Your task to perform on an android device: Open eBay Image 0: 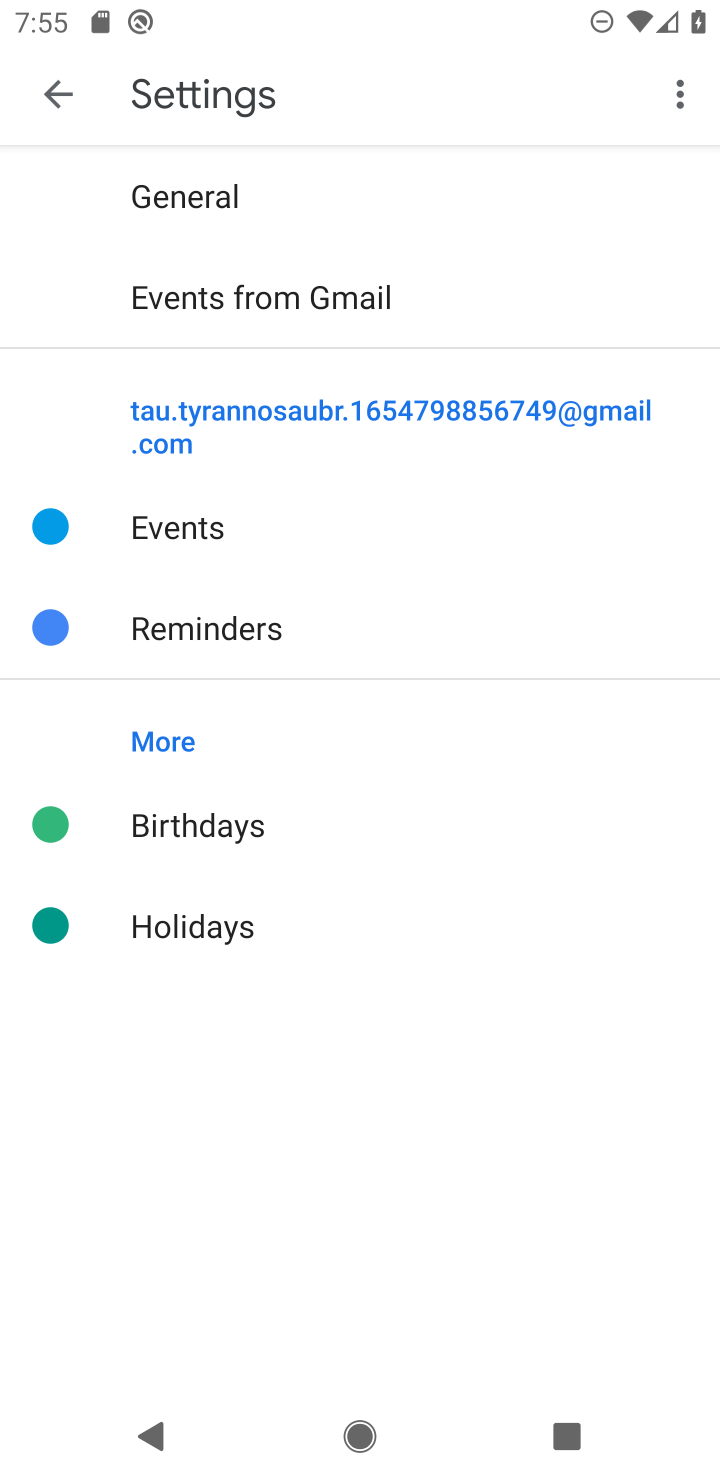
Step 0: press home button
Your task to perform on an android device: Open eBay Image 1: 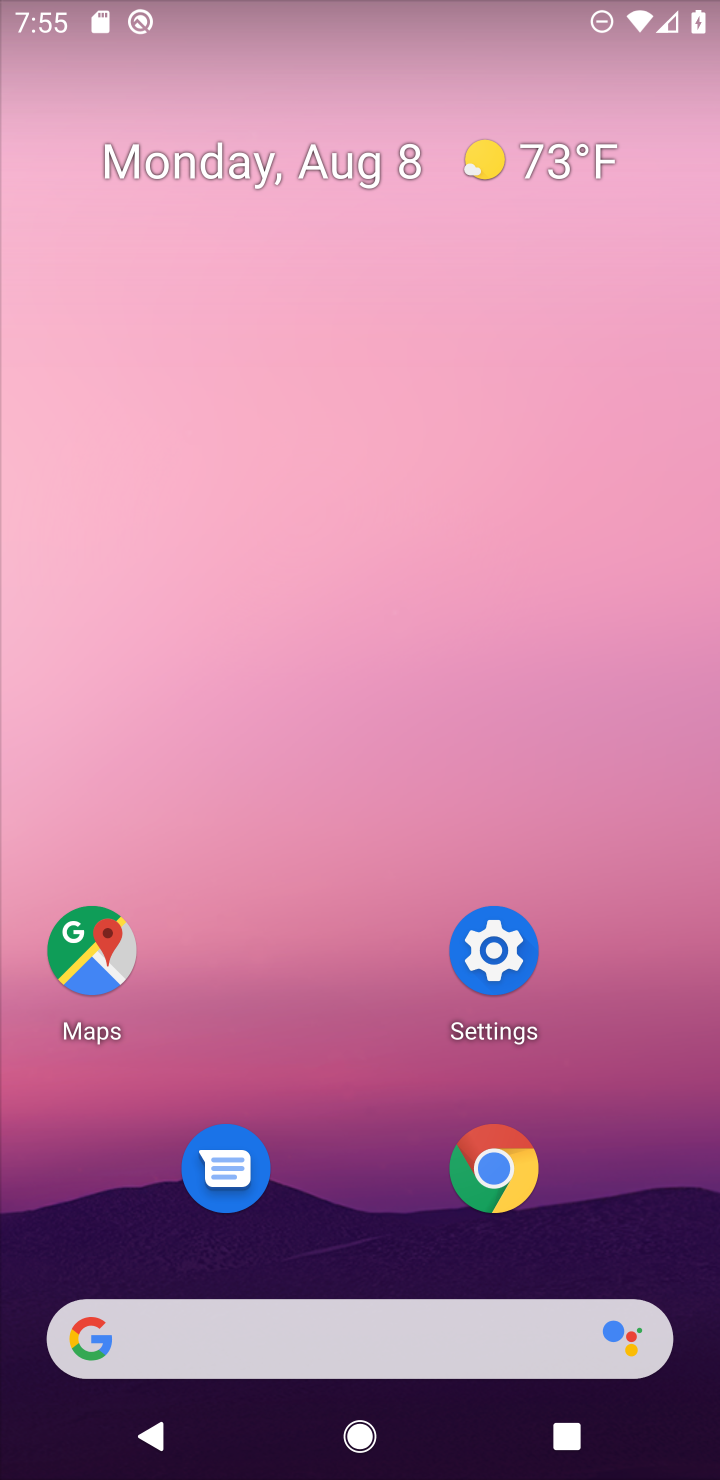
Step 1: click (486, 1163)
Your task to perform on an android device: Open eBay Image 2: 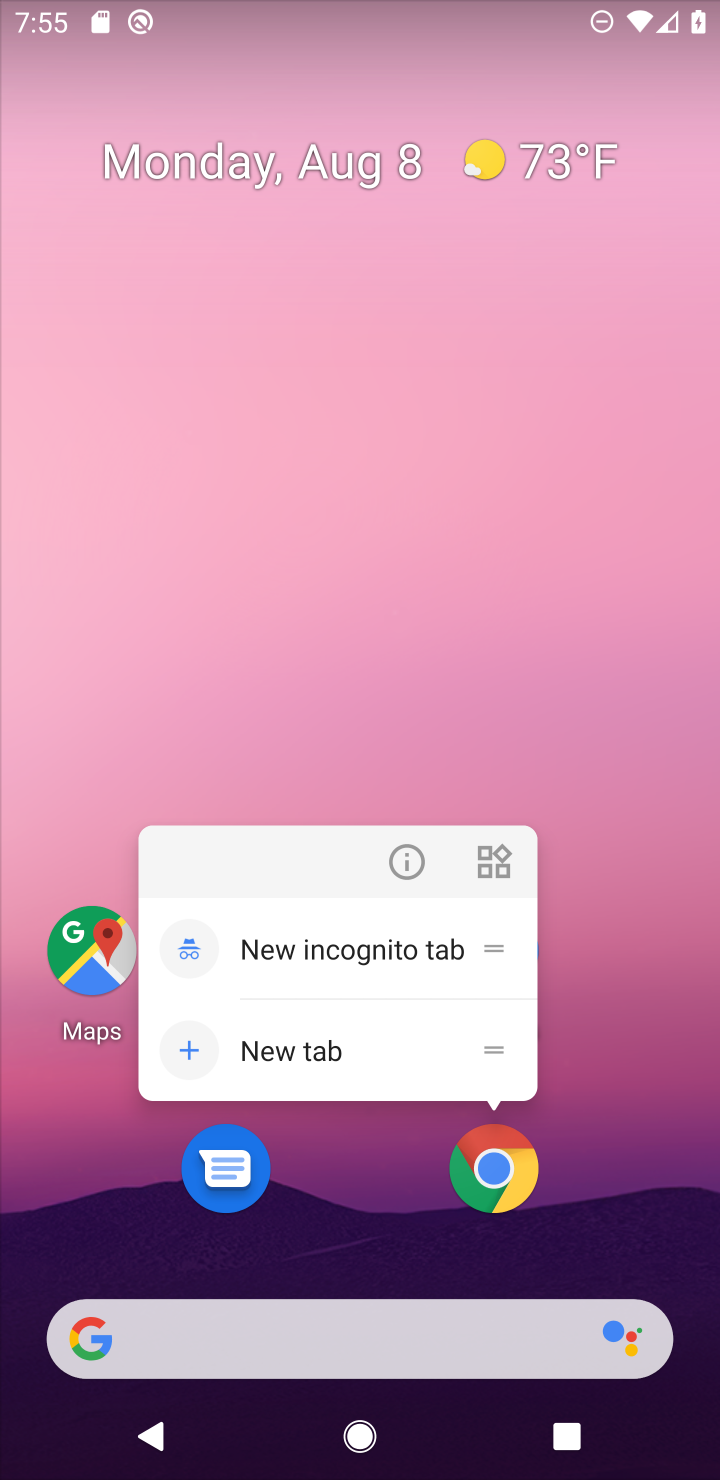
Step 2: click (488, 1165)
Your task to perform on an android device: Open eBay Image 3: 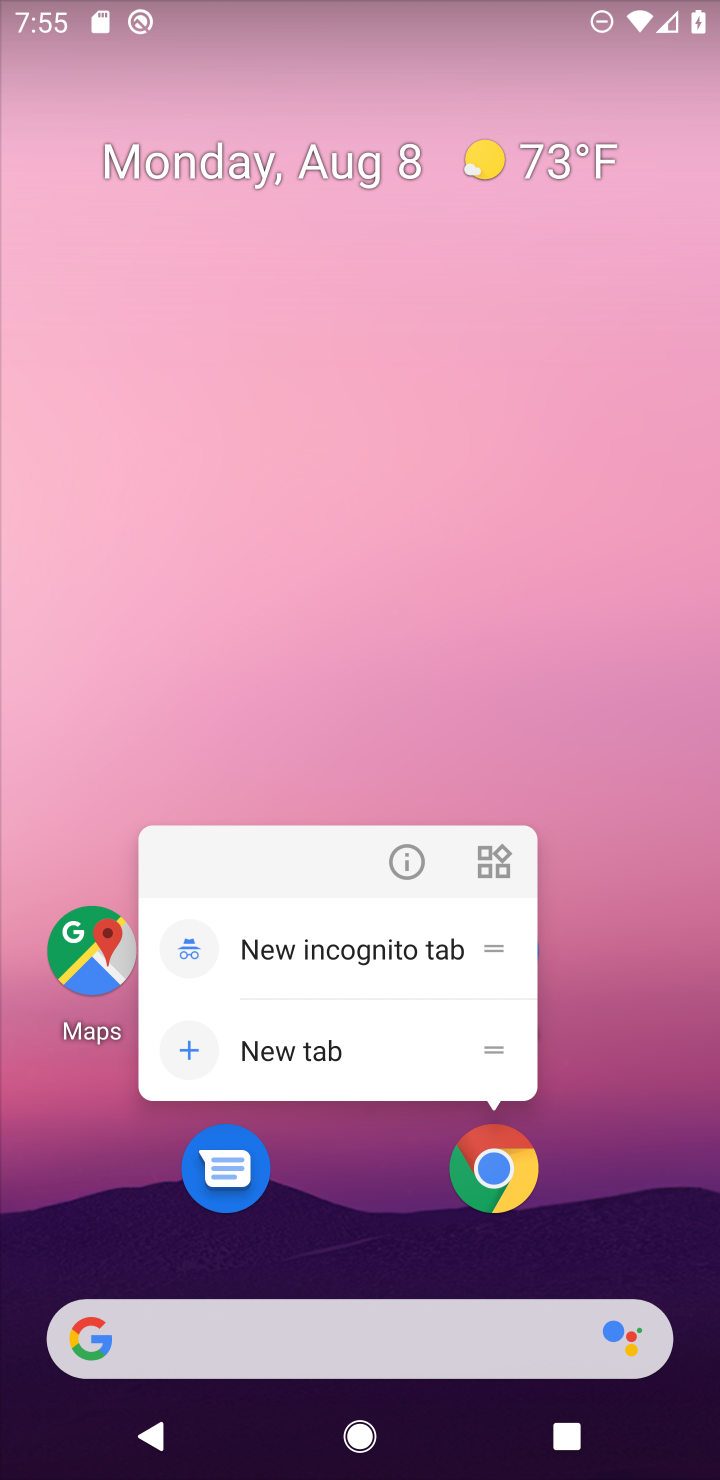
Step 3: click (488, 1165)
Your task to perform on an android device: Open eBay Image 4: 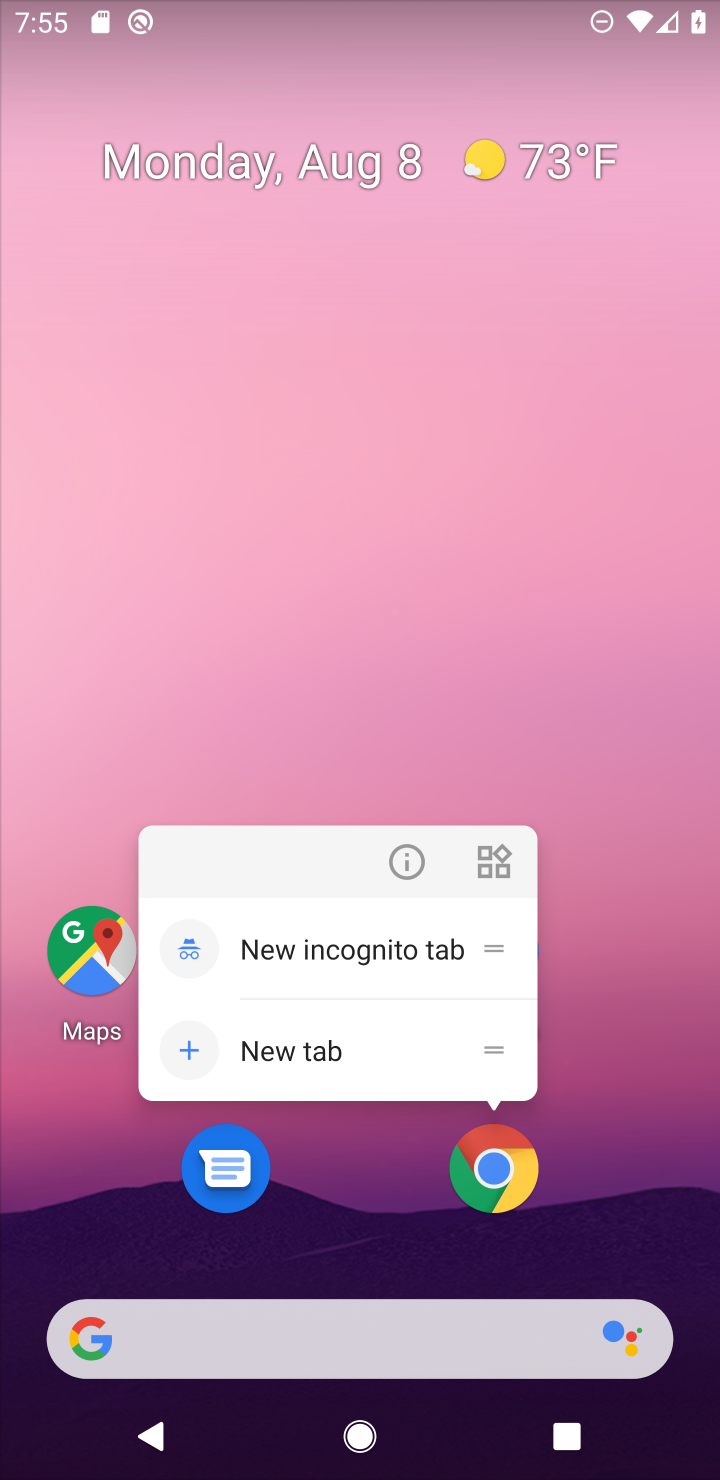
Step 4: click (488, 1181)
Your task to perform on an android device: Open eBay Image 5: 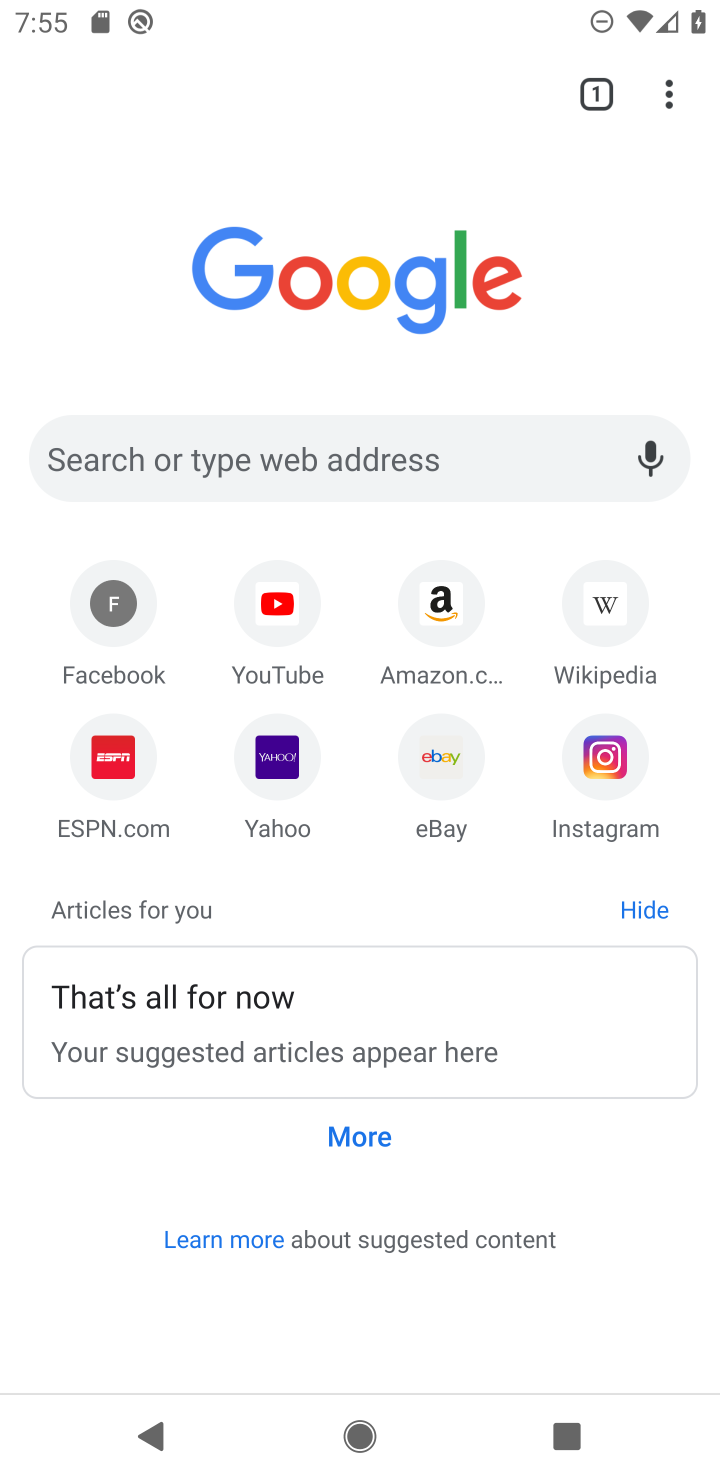
Step 5: click (454, 765)
Your task to perform on an android device: Open eBay Image 6: 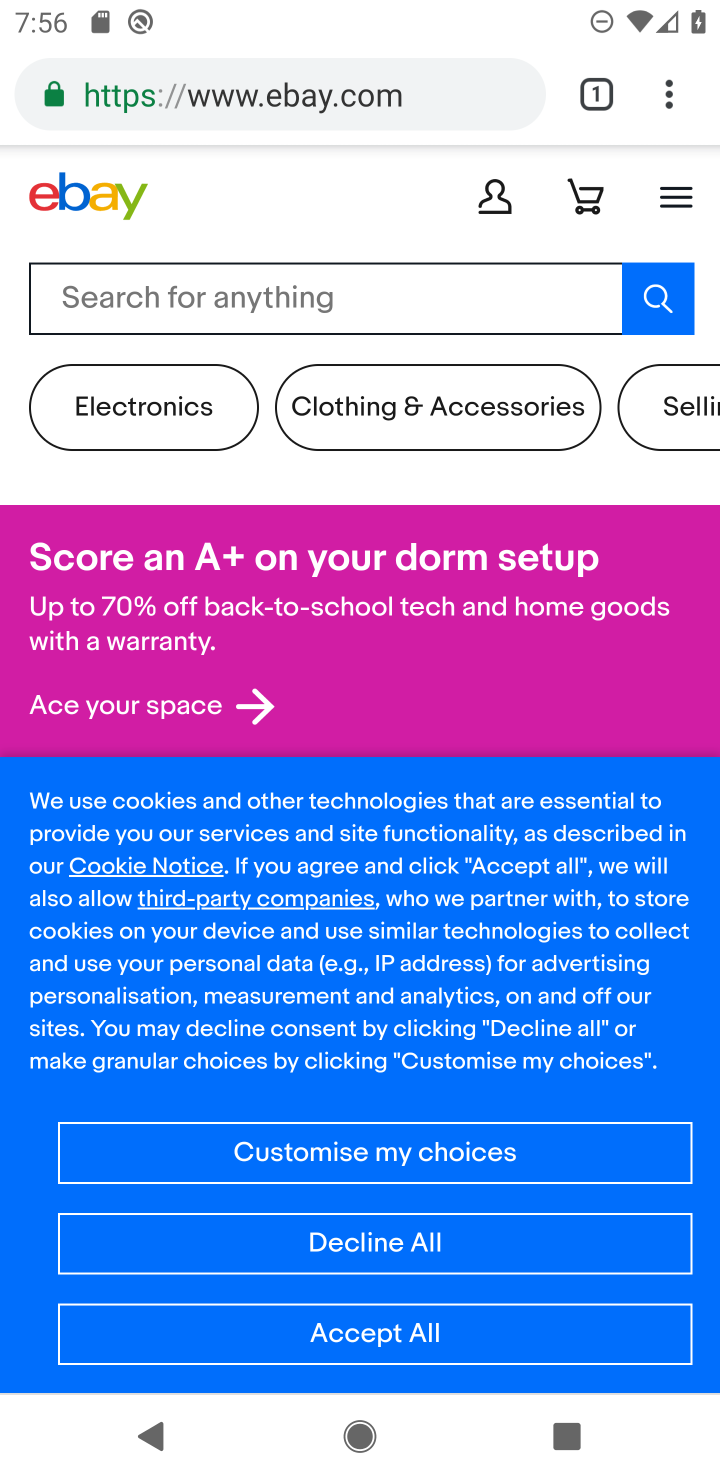
Step 6: click (460, 1317)
Your task to perform on an android device: Open eBay Image 7: 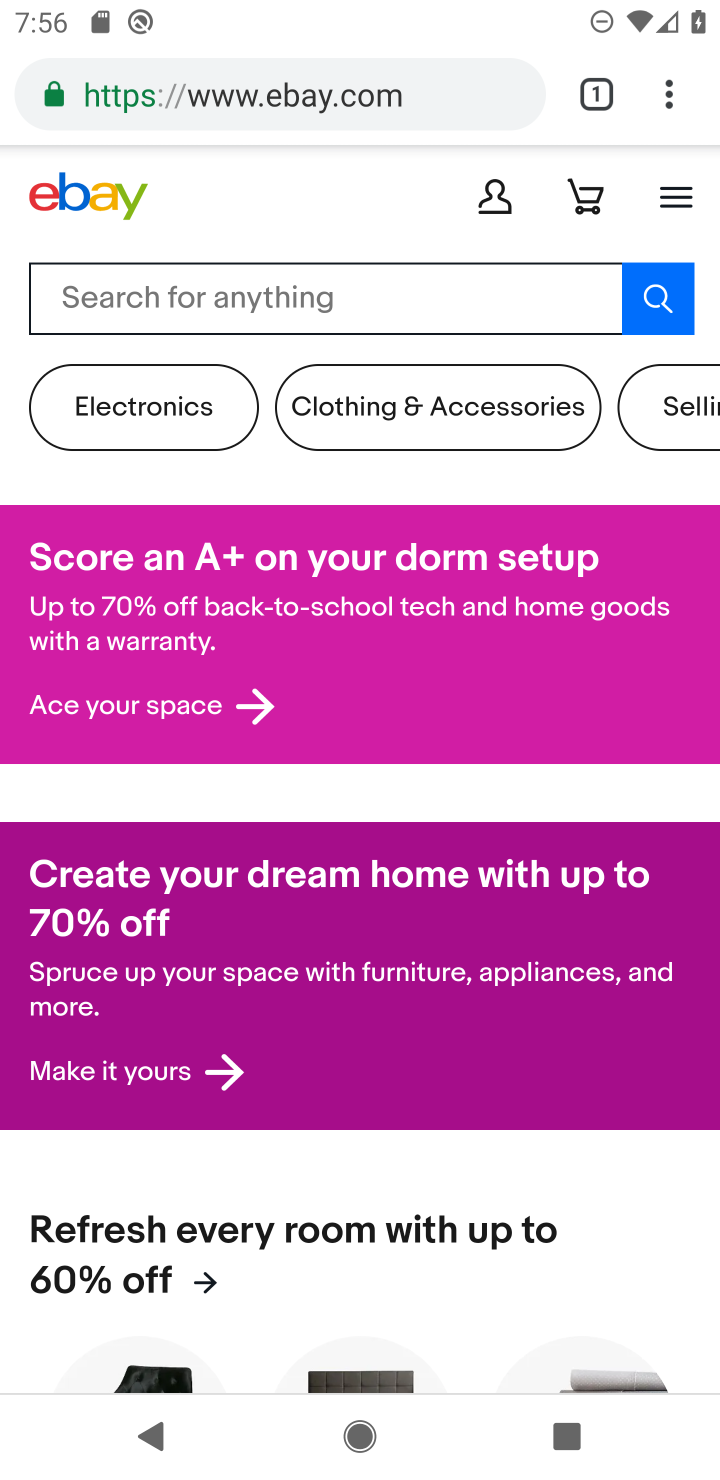
Step 7: task complete